Your task to perform on an android device: Go to Wikipedia Image 0: 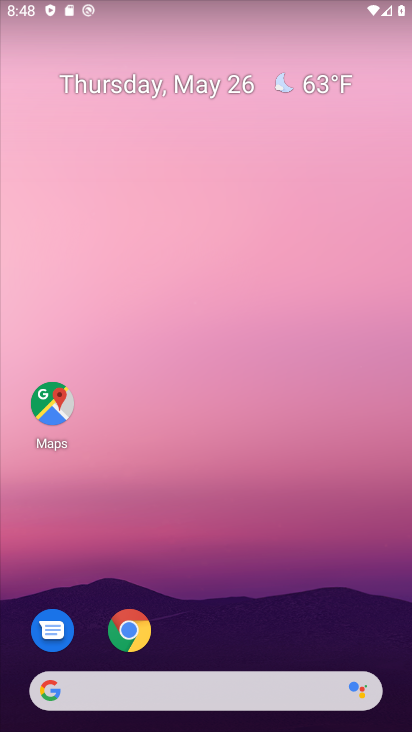
Step 0: drag from (251, 330) to (231, 103)
Your task to perform on an android device: Go to Wikipedia Image 1: 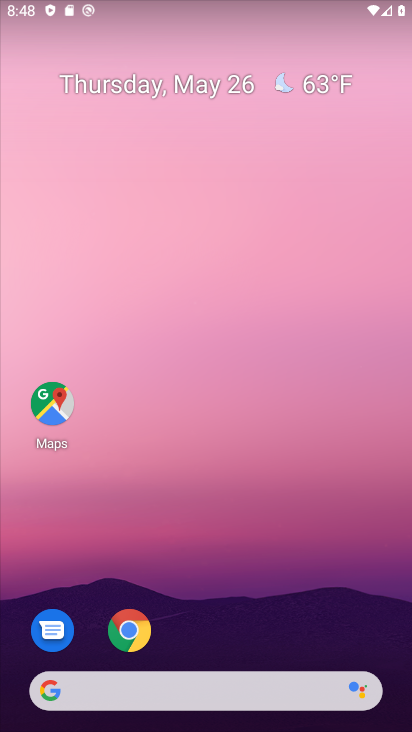
Step 1: drag from (261, 699) to (248, 151)
Your task to perform on an android device: Go to Wikipedia Image 2: 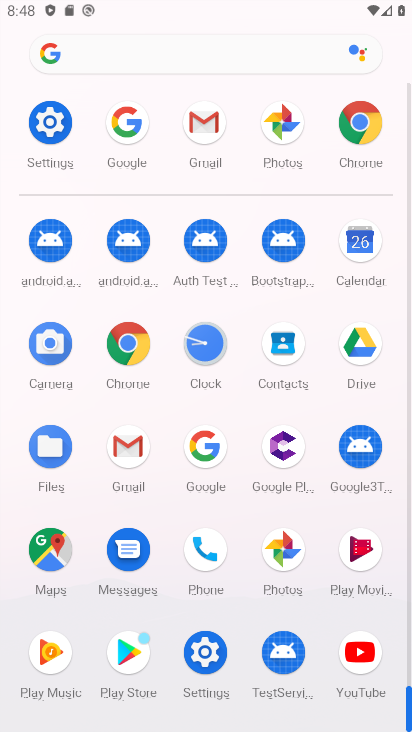
Step 2: click (359, 128)
Your task to perform on an android device: Go to Wikipedia Image 3: 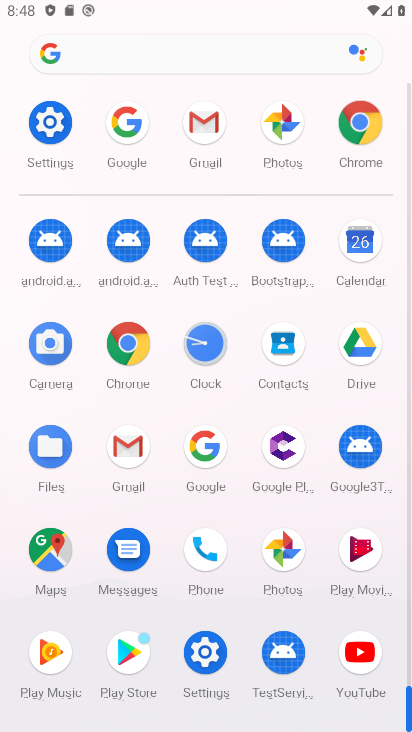
Step 3: click (359, 128)
Your task to perform on an android device: Go to Wikipedia Image 4: 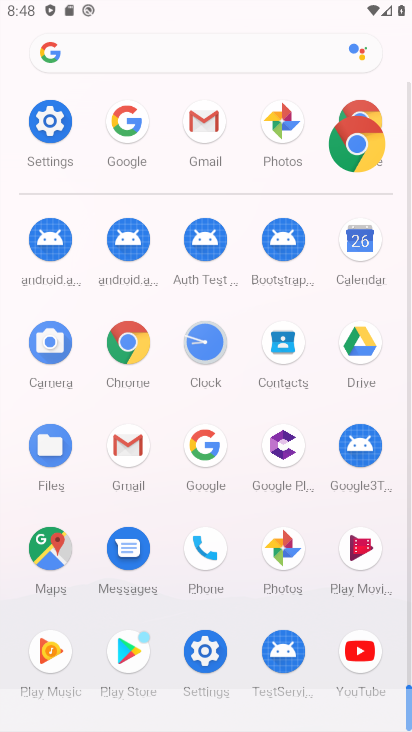
Step 4: click (359, 128)
Your task to perform on an android device: Go to Wikipedia Image 5: 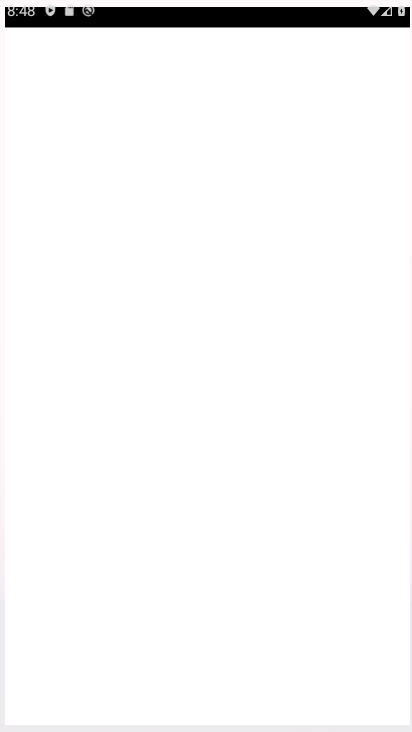
Step 5: click (359, 128)
Your task to perform on an android device: Go to Wikipedia Image 6: 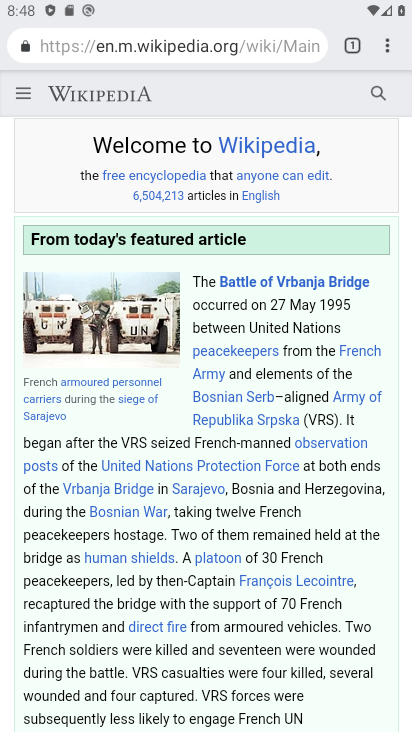
Step 6: task complete